Your task to perform on an android device: turn off improve location accuracy Image 0: 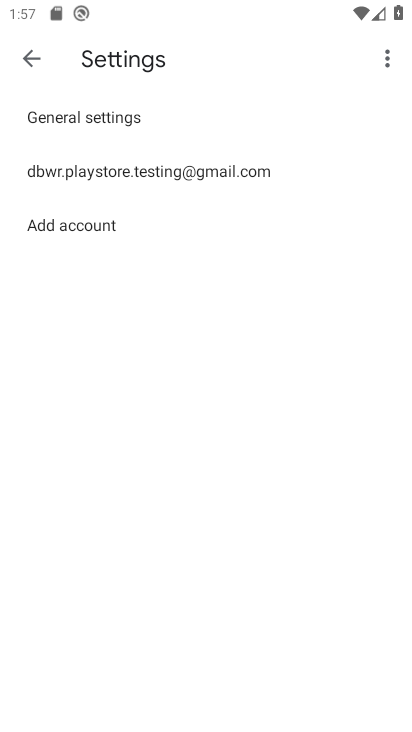
Step 0: press home button
Your task to perform on an android device: turn off improve location accuracy Image 1: 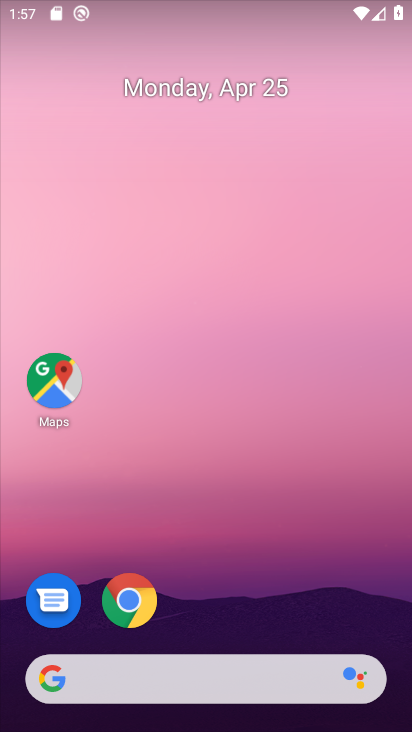
Step 1: drag from (284, 579) to (243, 64)
Your task to perform on an android device: turn off improve location accuracy Image 2: 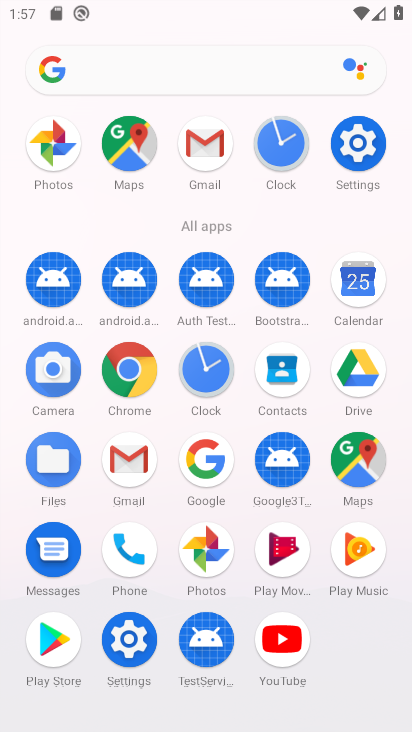
Step 2: click (123, 632)
Your task to perform on an android device: turn off improve location accuracy Image 3: 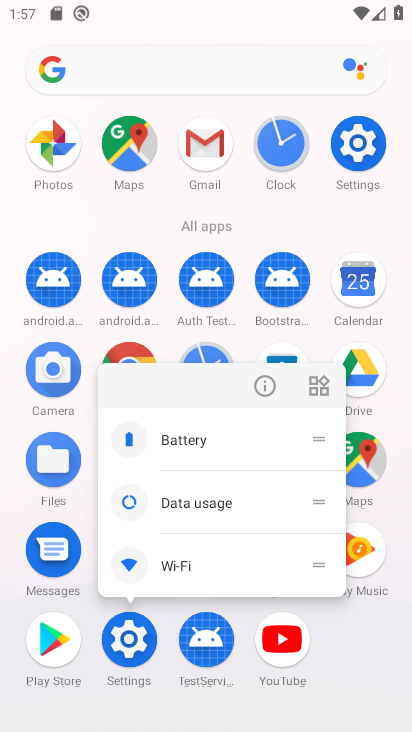
Step 3: click (140, 656)
Your task to perform on an android device: turn off improve location accuracy Image 4: 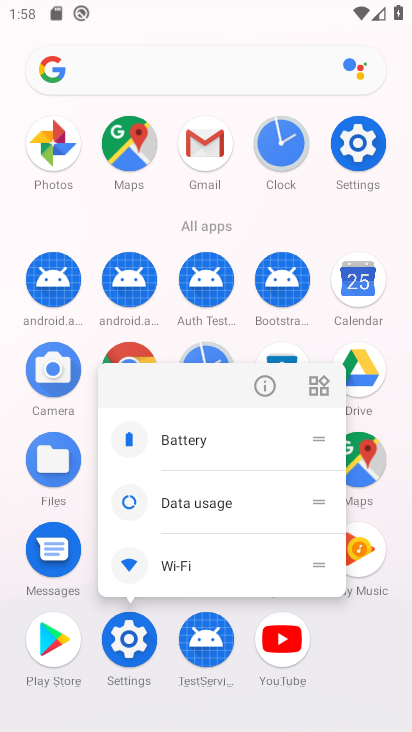
Step 4: click (105, 629)
Your task to perform on an android device: turn off improve location accuracy Image 5: 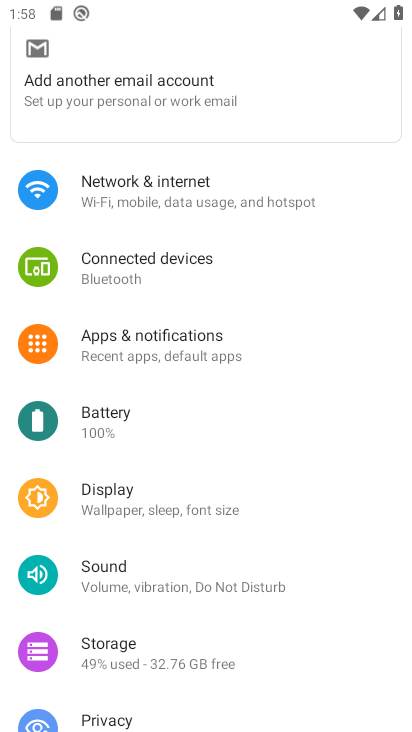
Step 5: drag from (193, 657) to (166, 256)
Your task to perform on an android device: turn off improve location accuracy Image 6: 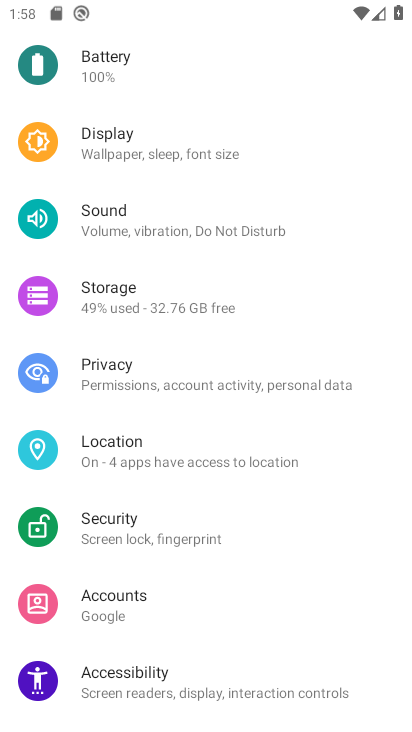
Step 6: click (136, 455)
Your task to perform on an android device: turn off improve location accuracy Image 7: 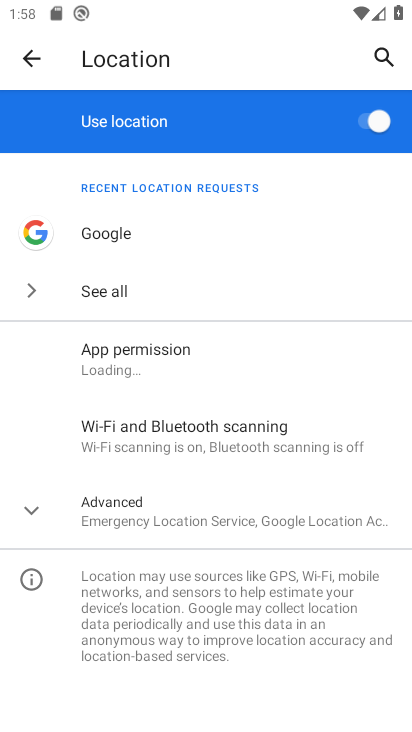
Step 7: click (179, 506)
Your task to perform on an android device: turn off improve location accuracy Image 8: 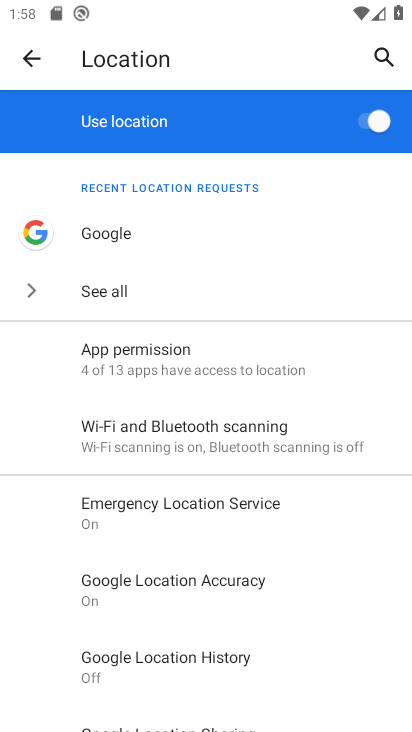
Step 8: click (237, 581)
Your task to perform on an android device: turn off improve location accuracy Image 9: 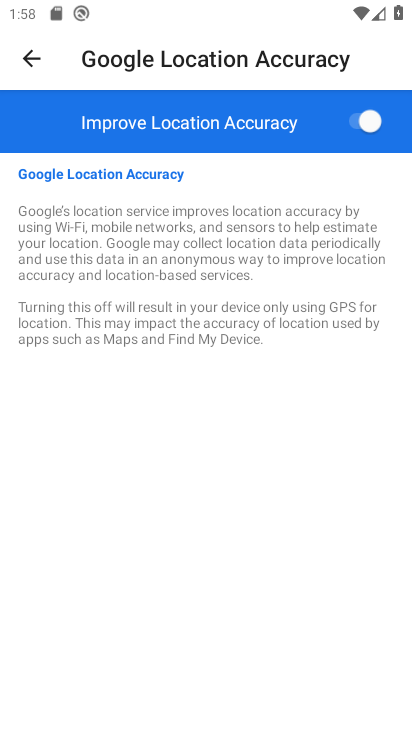
Step 9: click (356, 122)
Your task to perform on an android device: turn off improve location accuracy Image 10: 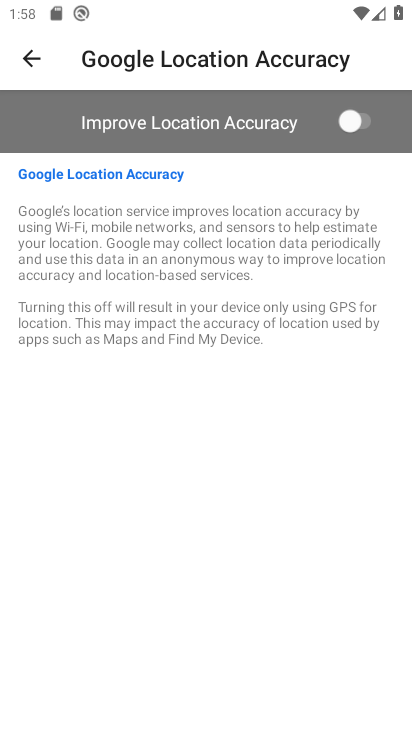
Step 10: task complete